Your task to perform on an android device: Open settings Image 0: 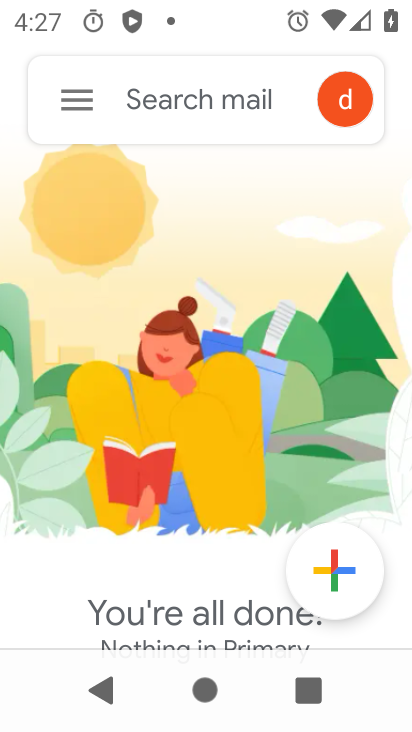
Step 0: press home button
Your task to perform on an android device: Open settings Image 1: 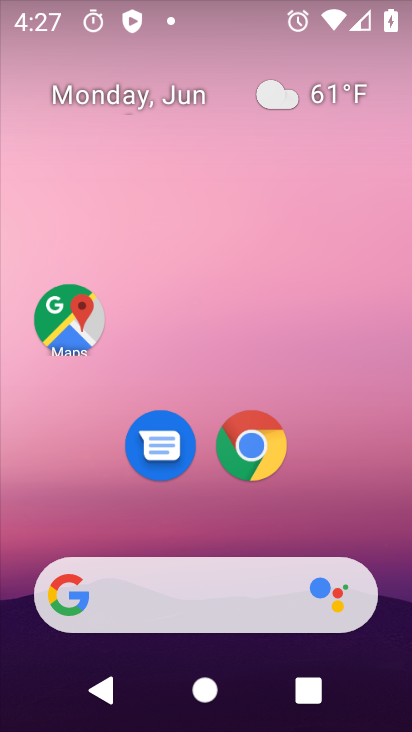
Step 1: drag from (224, 526) to (179, 47)
Your task to perform on an android device: Open settings Image 2: 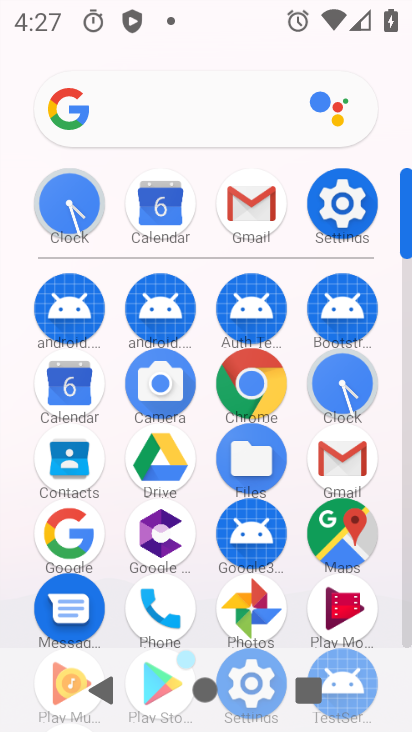
Step 2: click (329, 202)
Your task to perform on an android device: Open settings Image 3: 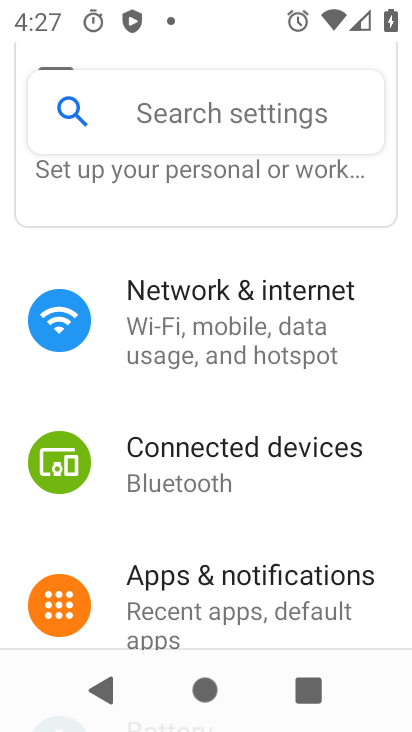
Step 3: task complete